Your task to perform on an android device: make emails show in primary in the gmail app Image 0: 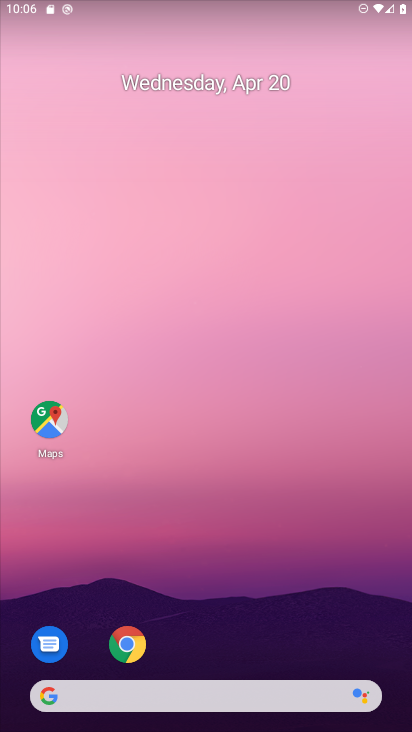
Step 0: drag from (254, 628) to (251, 79)
Your task to perform on an android device: make emails show in primary in the gmail app Image 1: 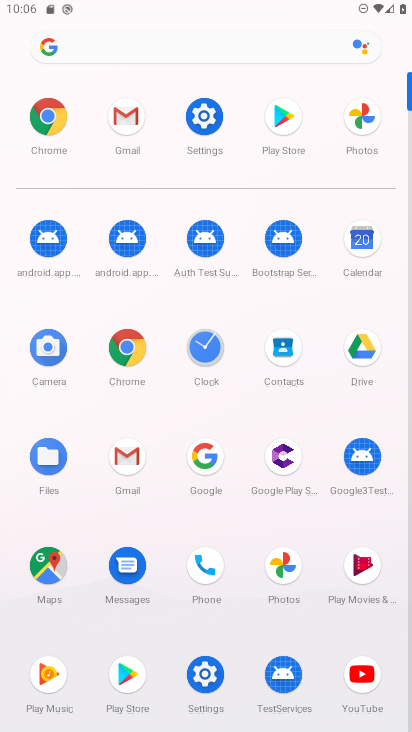
Step 1: click (123, 459)
Your task to perform on an android device: make emails show in primary in the gmail app Image 2: 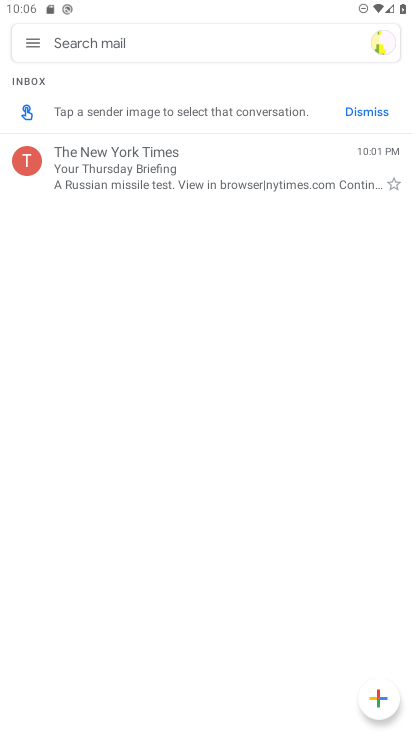
Step 2: click (153, 180)
Your task to perform on an android device: make emails show in primary in the gmail app Image 3: 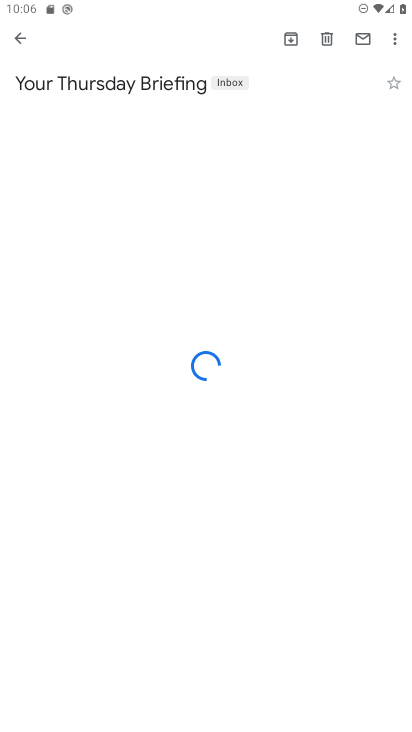
Step 3: click (404, 29)
Your task to perform on an android device: make emails show in primary in the gmail app Image 4: 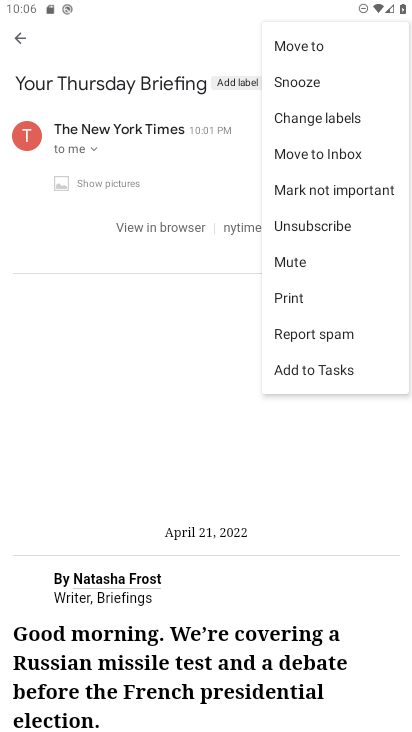
Step 4: click (305, 50)
Your task to perform on an android device: make emails show in primary in the gmail app Image 5: 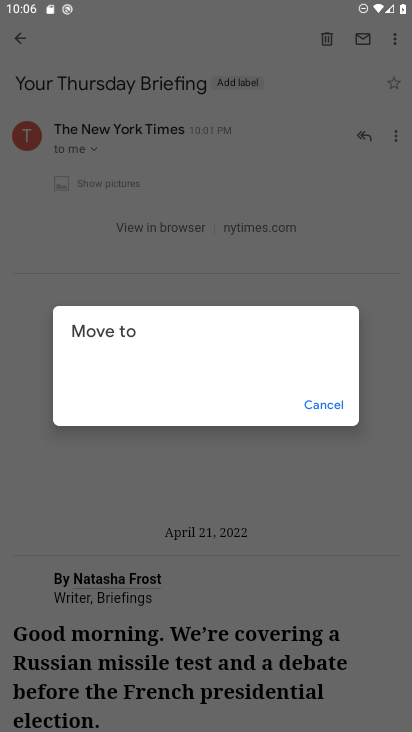
Step 5: task complete